Your task to perform on an android device: change the clock display to analog Image 0: 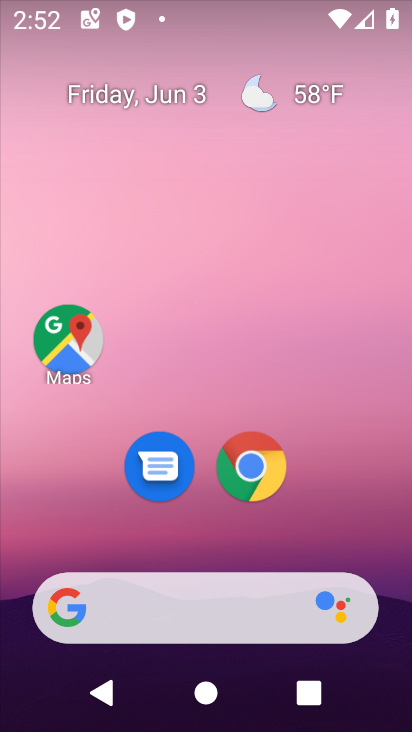
Step 0: drag from (359, 487) to (249, 57)
Your task to perform on an android device: change the clock display to analog Image 1: 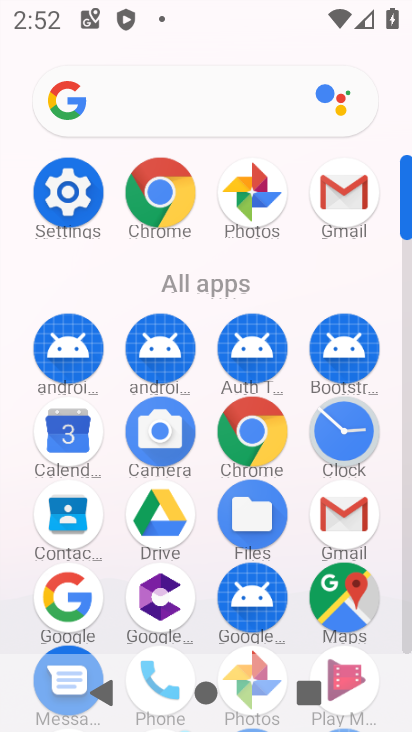
Step 1: click (346, 430)
Your task to perform on an android device: change the clock display to analog Image 2: 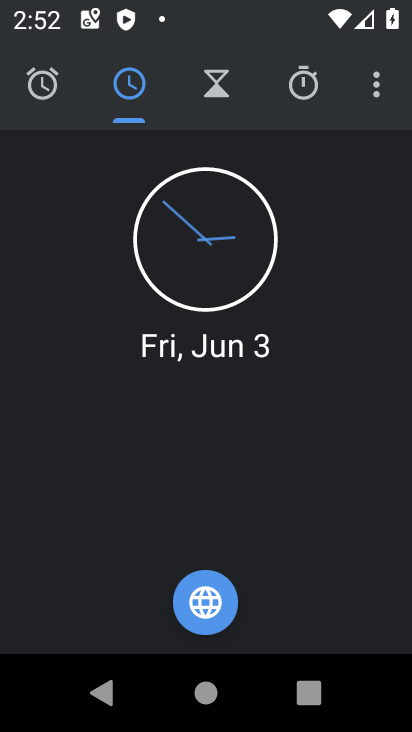
Step 2: click (370, 96)
Your task to perform on an android device: change the clock display to analog Image 3: 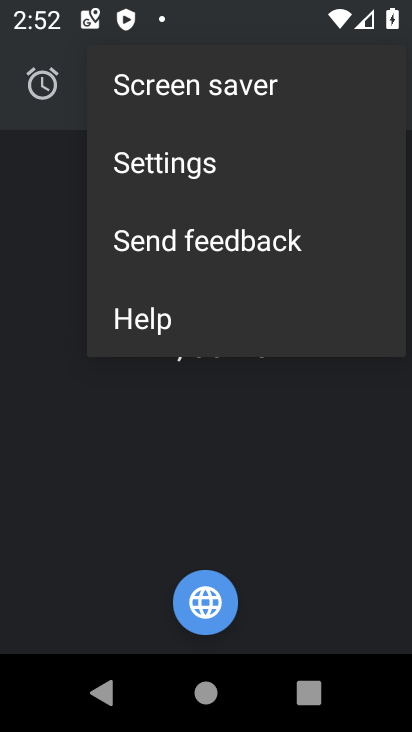
Step 3: click (205, 173)
Your task to perform on an android device: change the clock display to analog Image 4: 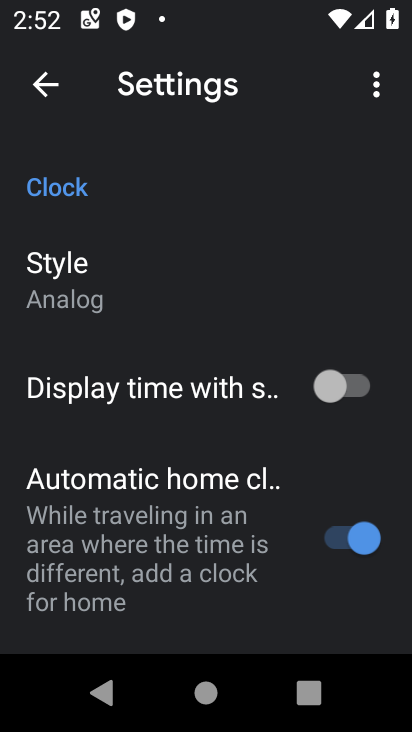
Step 4: click (83, 285)
Your task to perform on an android device: change the clock display to analog Image 5: 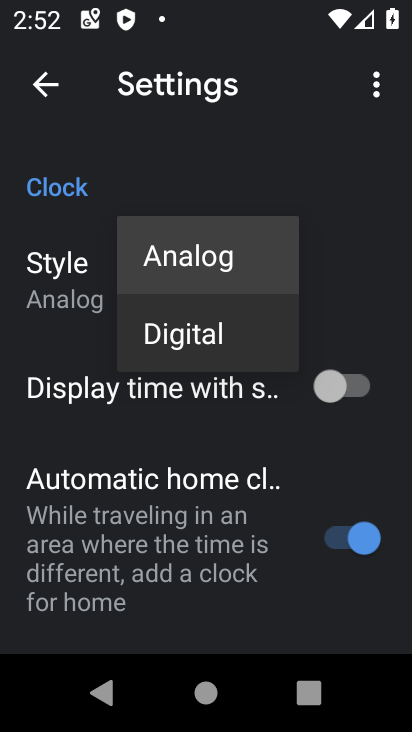
Step 5: click (187, 260)
Your task to perform on an android device: change the clock display to analog Image 6: 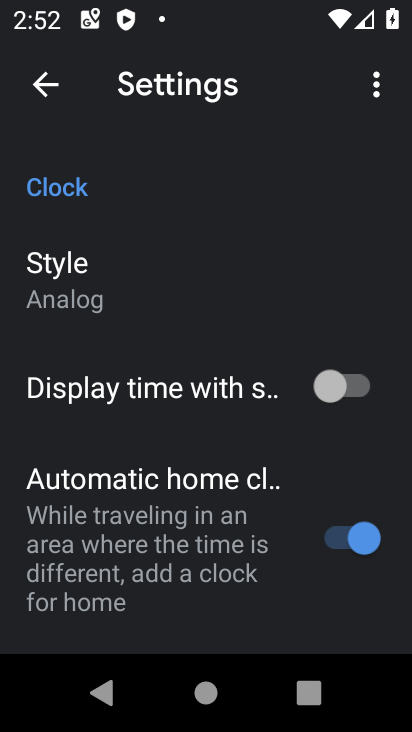
Step 6: task complete